Your task to perform on an android device: open wifi settings Image 0: 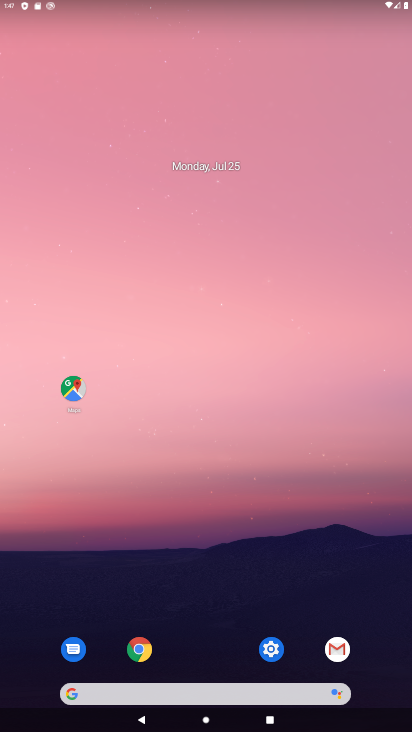
Step 0: click (267, 654)
Your task to perform on an android device: open wifi settings Image 1: 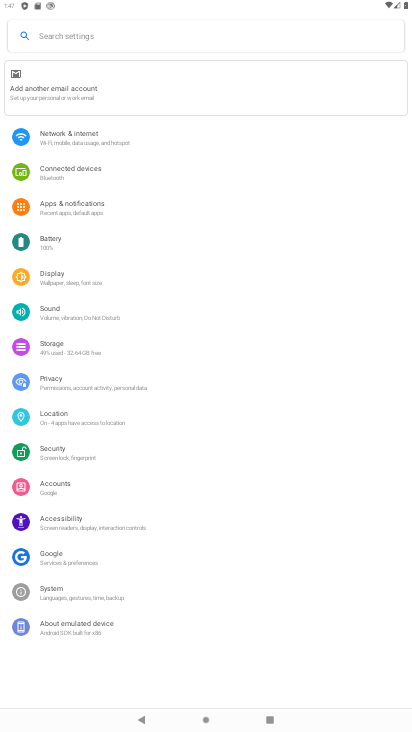
Step 1: click (121, 143)
Your task to perform on an android device: open wifi settings Image 2: 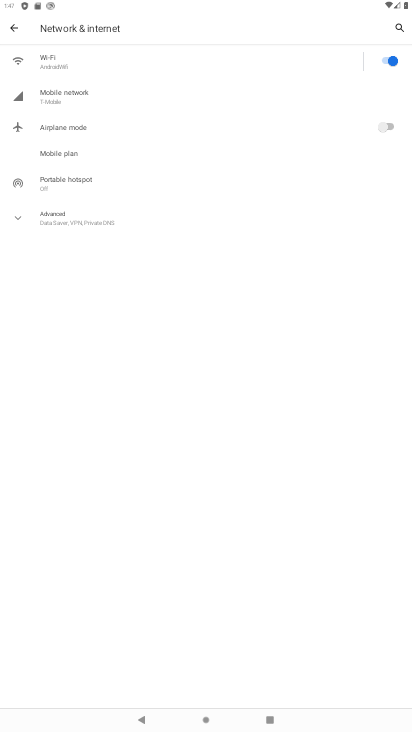
Step 2: click (110, 62)
Your task to perform on an android device: open wifi settings Image 3: 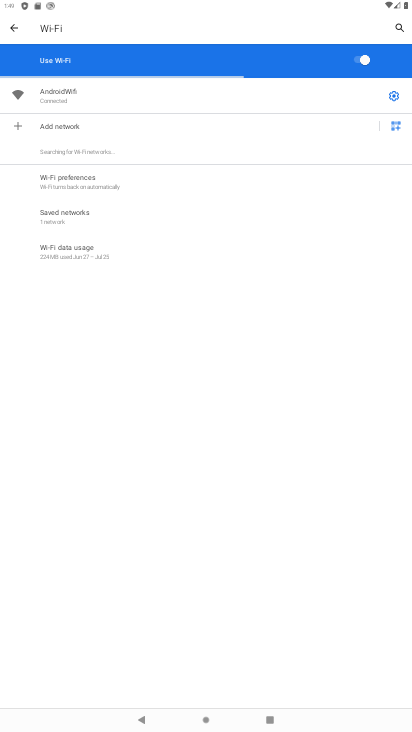
Step 3: task complete